Your task to perform on an android device: Open Youtube and go to the subscriptions tab Image 0: 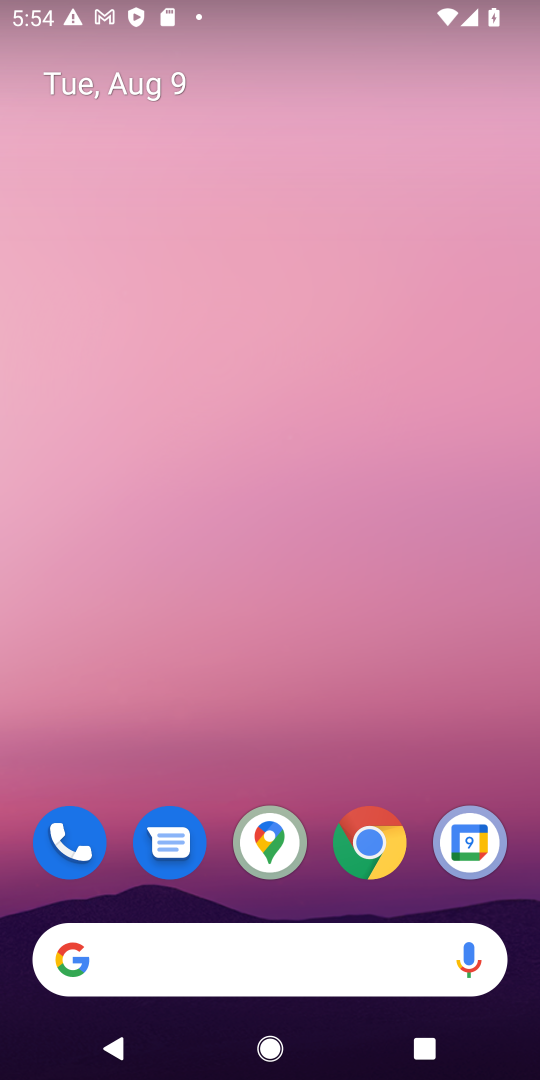
Step 0: drag from (258, 925) to (289, 170)
Your task to perform on an android device: Open Youtube and go to the subscriptions tab Image 1: 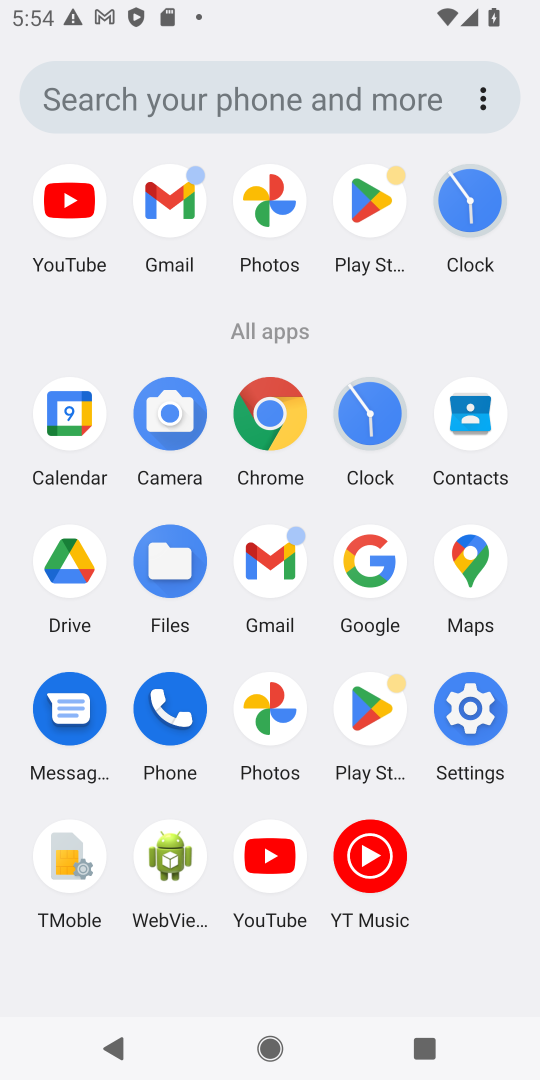
Step 1: click (279, 859)
Your task to perform on an android device: Open Youtube and go to the subscriptions tab Image 2: 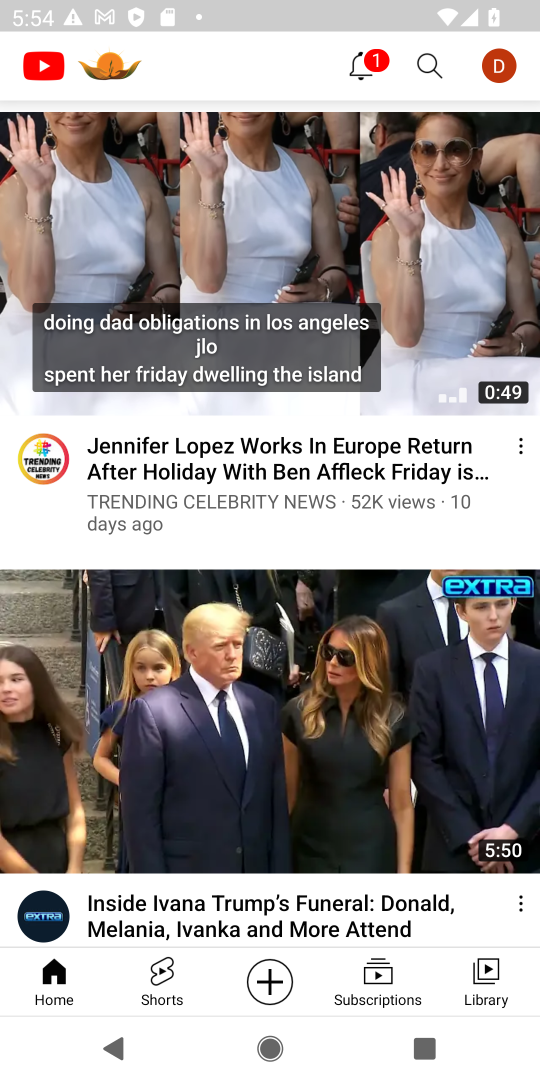
Step 2: click (374, 983)
Your task to perform on an android device: Open Youtube and go to the subscriptions tab Image 3: 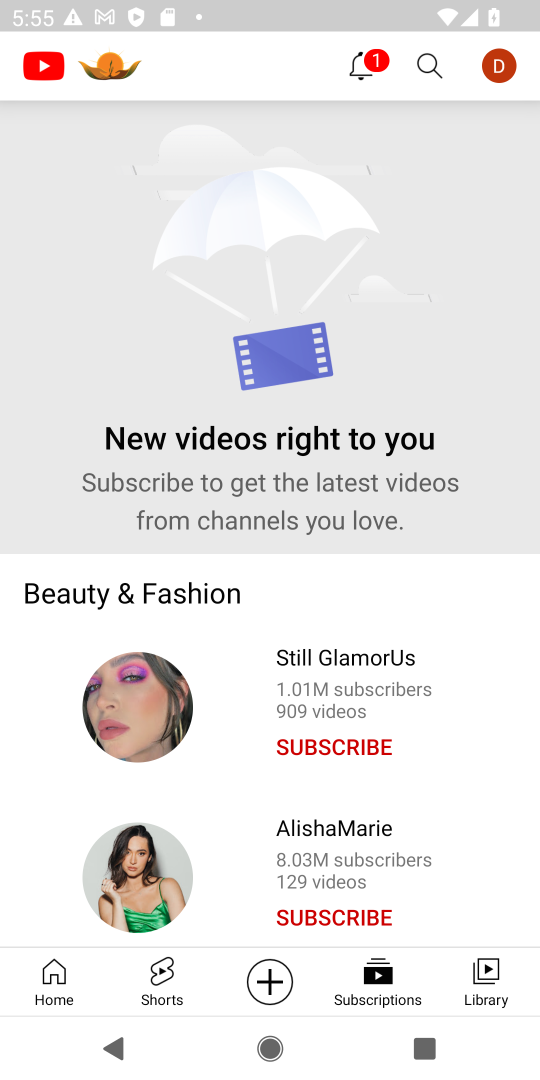
Step 3: task complete